Your task to perform on an android device: stop showing notifications on the lock screen Image 0: 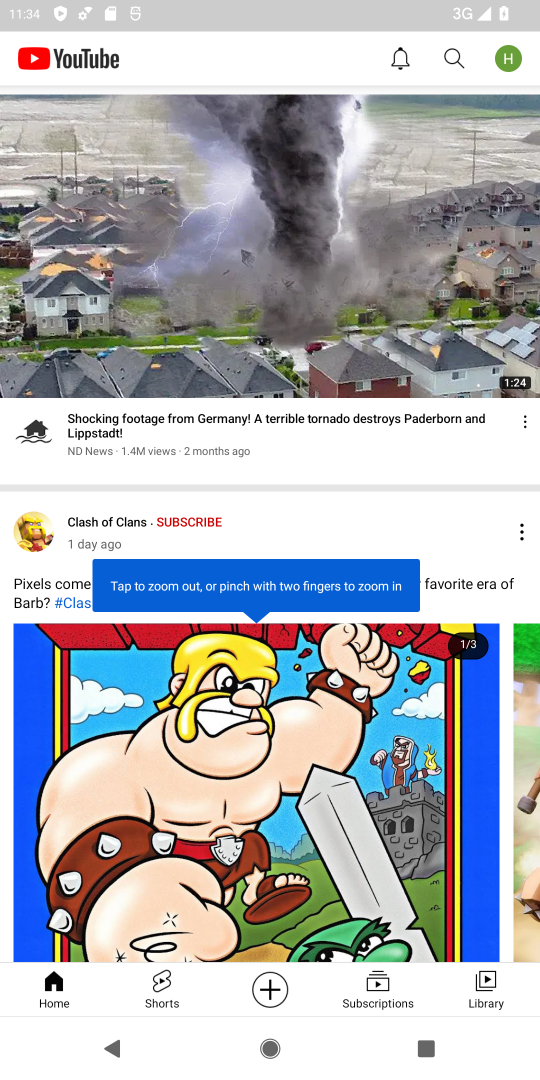
Step 0: drag from (203, 771) to (244, 352)
Your task to perform on an android device: stop showing notifications on the lock screen Image 1: 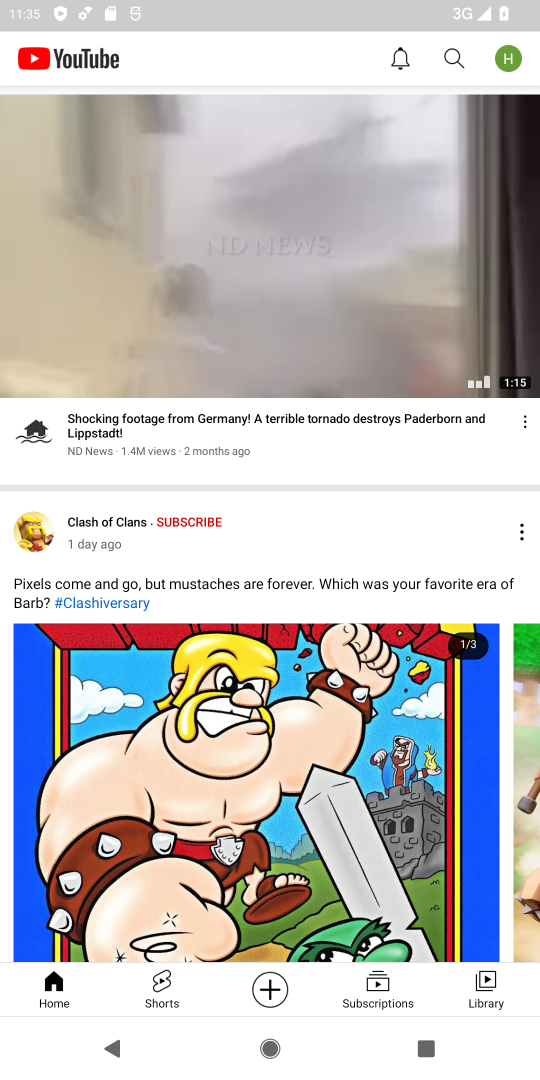
Step 1: drag from (285, 825) to (291, 366)
Your task to perform on an android device: stop showing notifications on the lock screen Image 2: 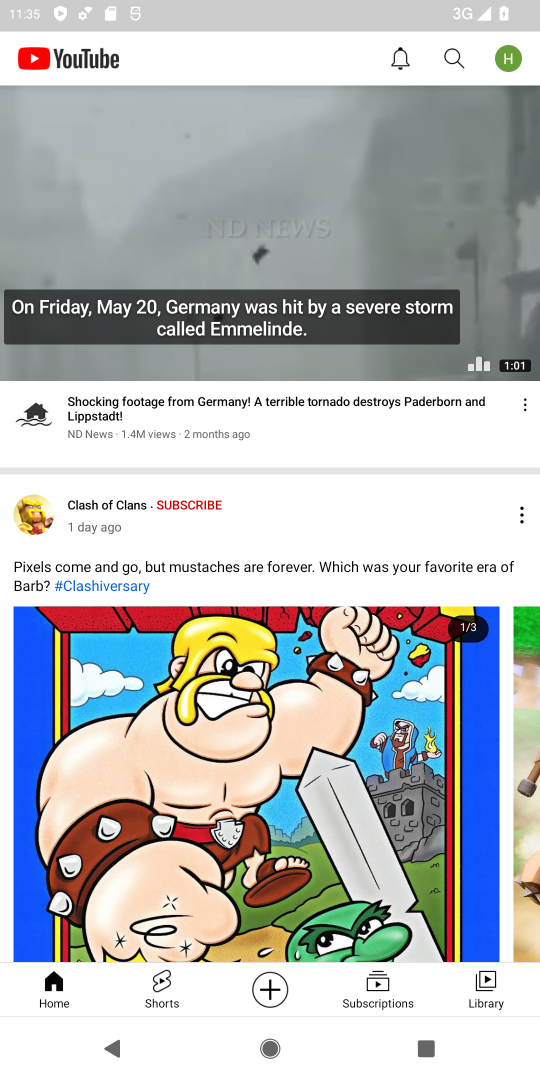
Step 2: drag from (296, 811) to (448, 389)
Your task to perform on an android device: stop showing notifications on the lock screen Image 3: 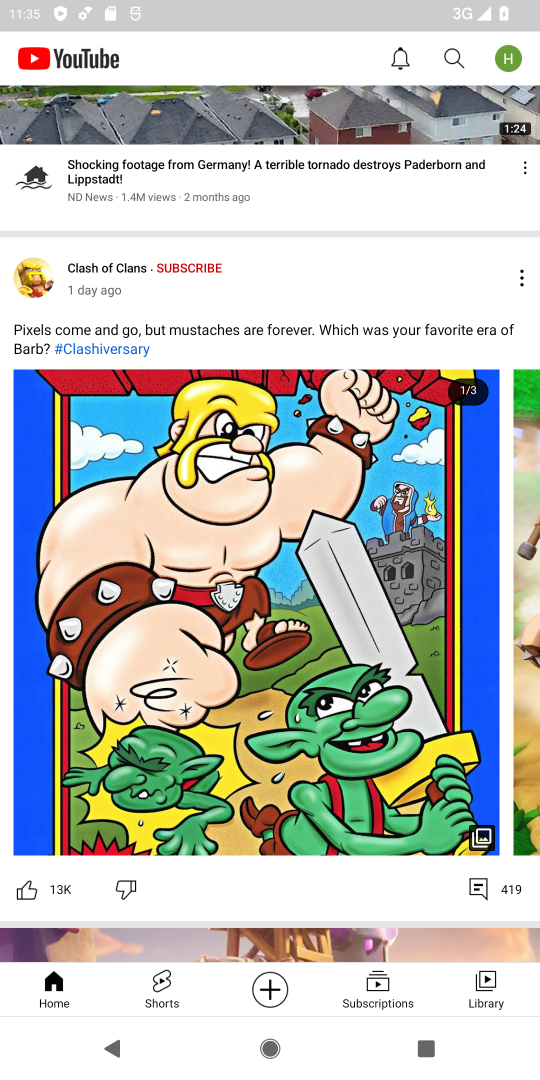
Step 3: drag from (351, 788) to (397, 1046)
Your task to perform on an android device: stop showing notifications on the lock screen Image 4: 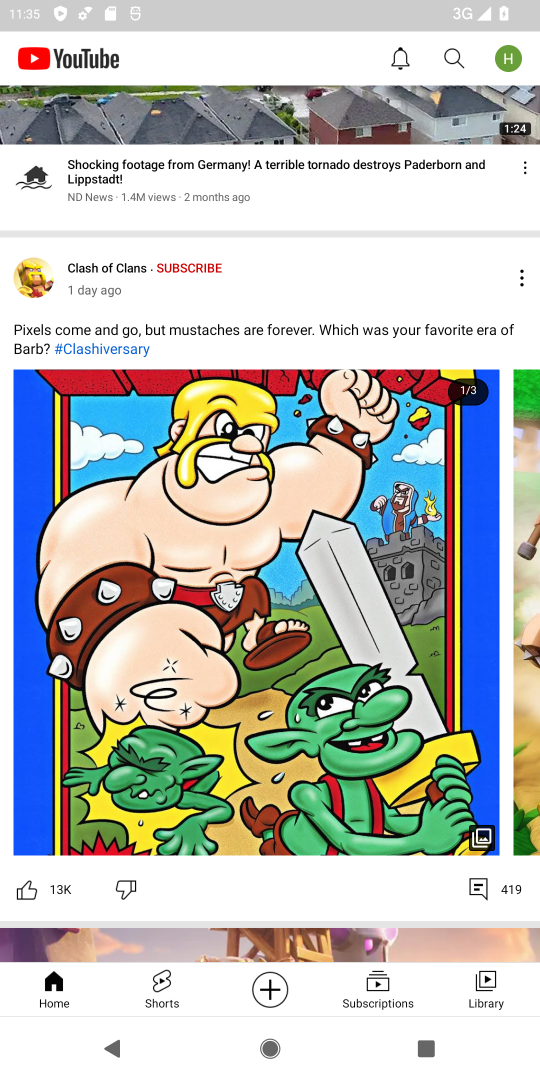
Step 4: press home button
Your task to perform on an android device: stop showing notifications on the lock screen Image 5: 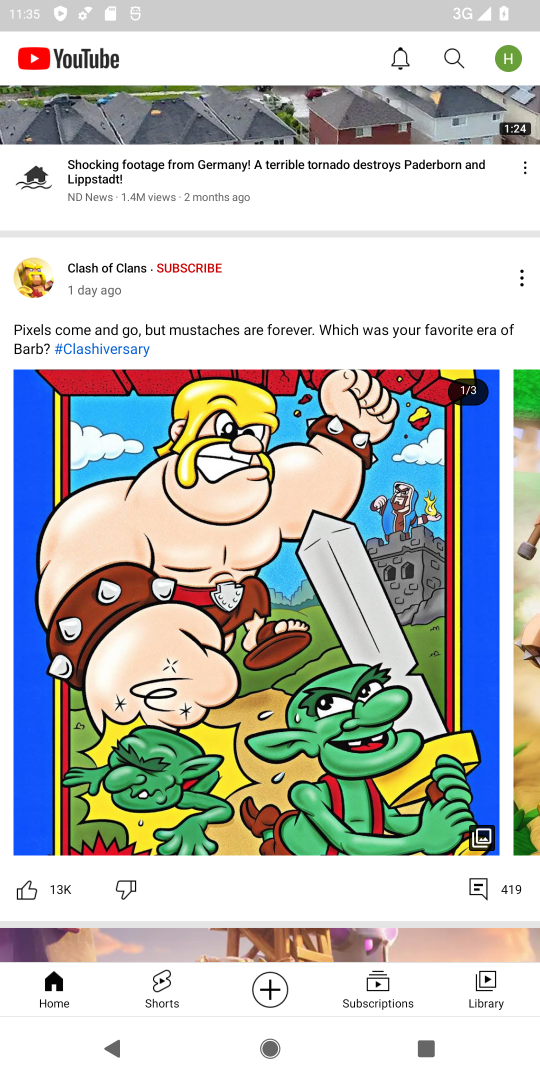
Step 5: click (507, 461)
Your task to perform on an android device: stop showing notifications on the lock screen Image 6: 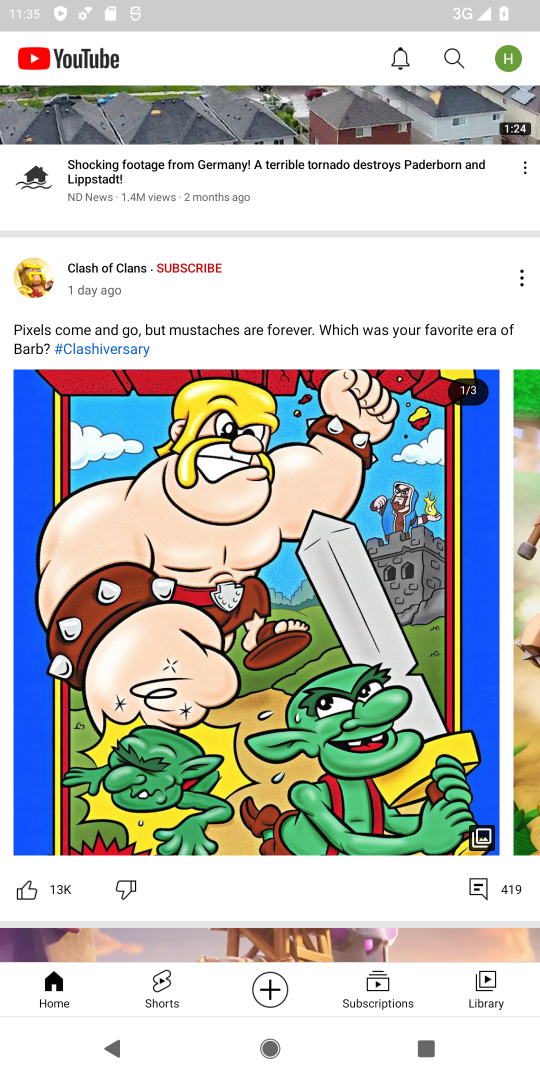
Step 6: drag from (300, 825) to (442, 136)
Your task to perform on an android device: stop showing notifications on the lock screen Image 7: 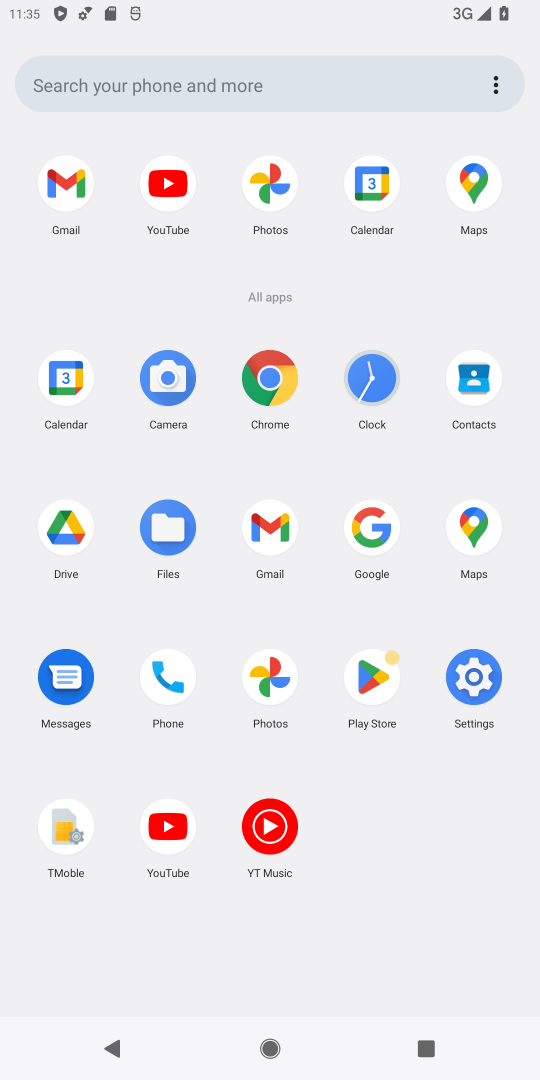
Step 7: click (479, 650)
Your task to perform on an android device: stop showing notifications on the lock screen Image 8: 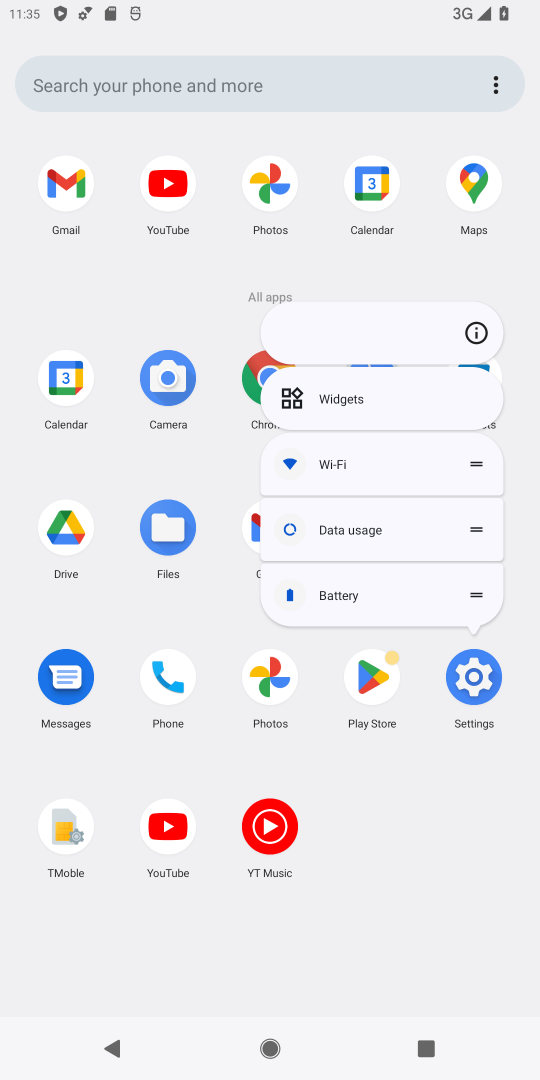
Step 8: click (473, 326)
Your task to perform on an android device: stop showing notifications on the lock screen Image 9: 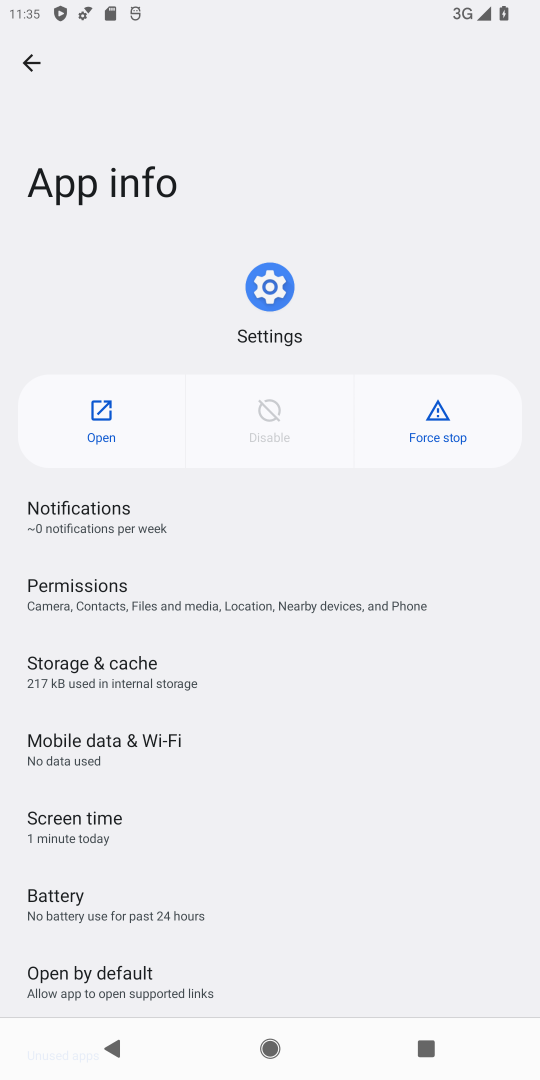
Step 9: click (111, 399)
Your task to perform on an android device: stop showing notifications on the lock screen Image 10: 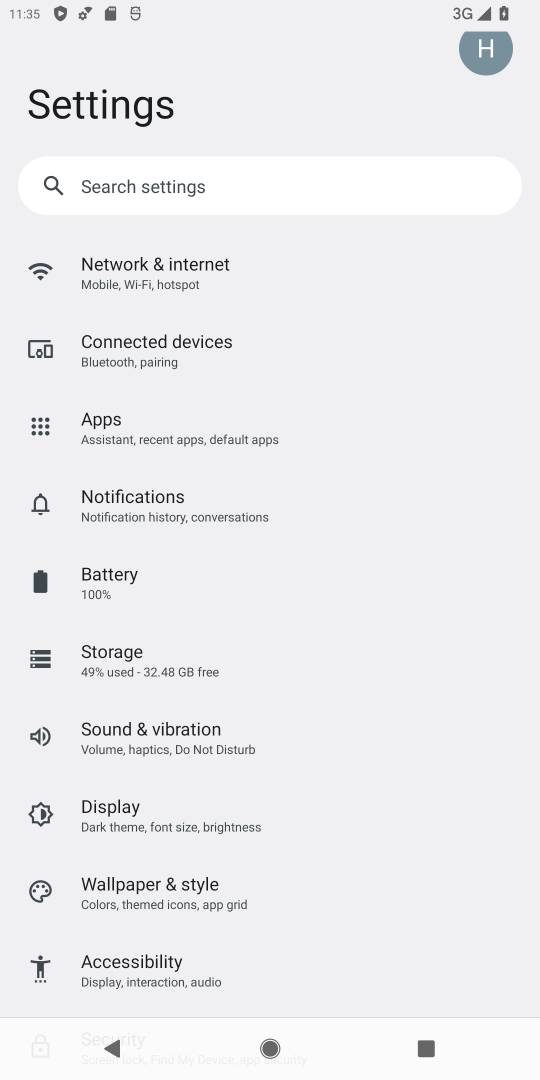
Step 10: drag from (246, 722) to (342, 970)
Your task to perform on an android device: stop showing notifications on the lock screen Image 11: 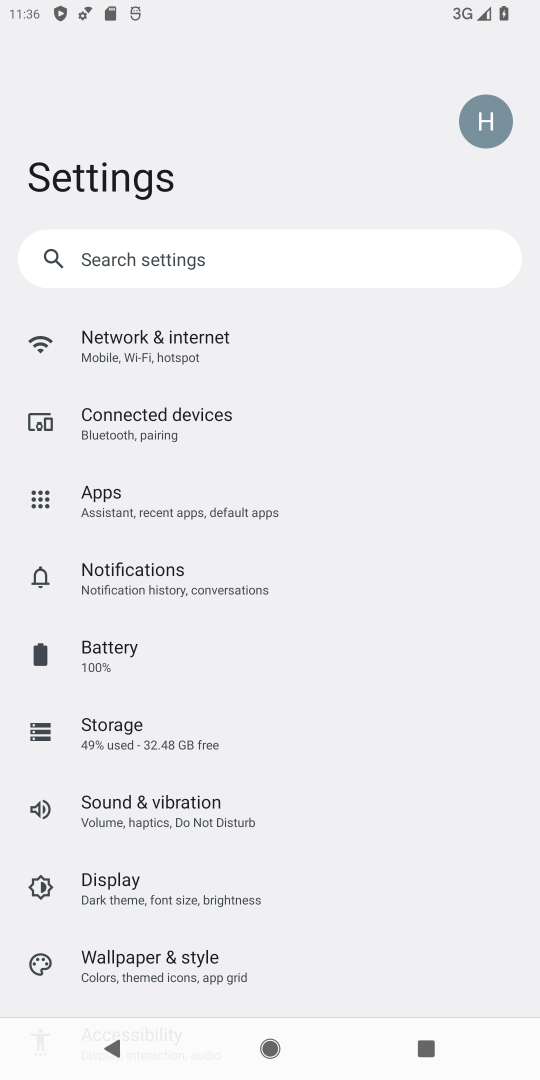
Step 11: click (166, 587)
Your task to perform on an android device: stop showing notifications on the lock screen Image 12: 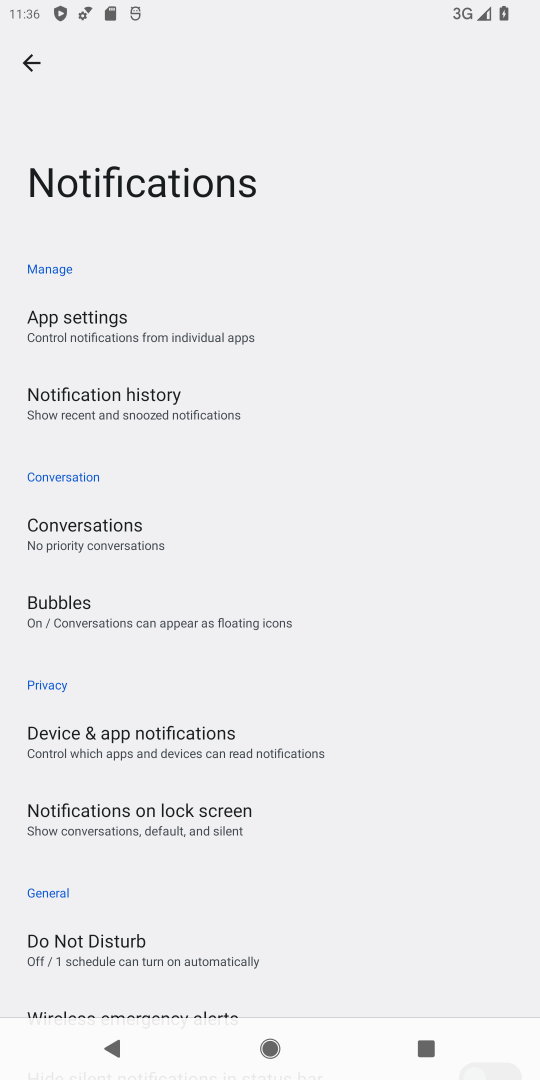
Step 12: drag from (222, 778) to (289, 350)
Your task to perform on an android device: stop showing notifications on the lock screen Image 13: 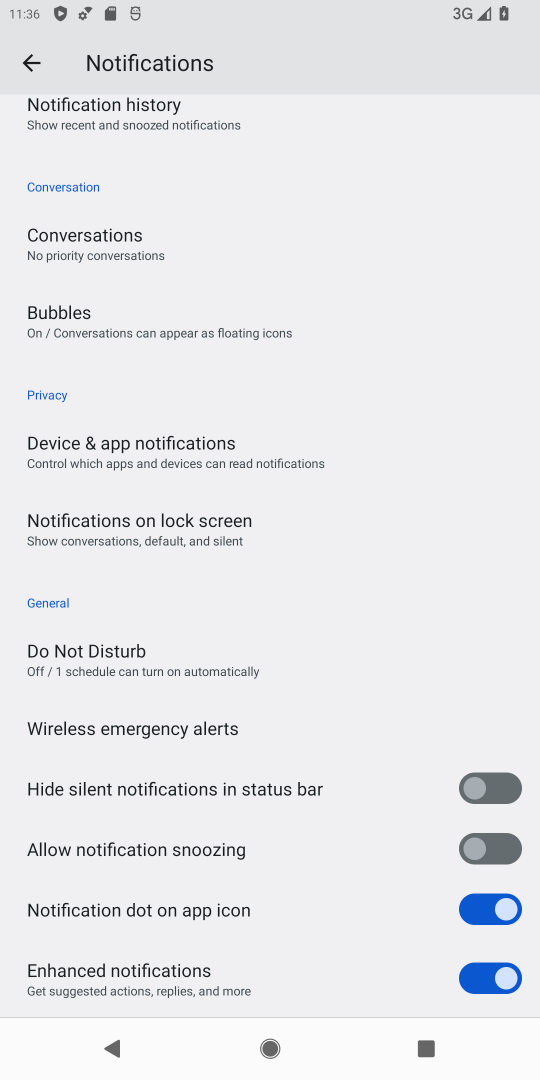
Step 13: click (157, 805)
Your task to perform on an android device: stop showing notifications on the lock screen Image 14: 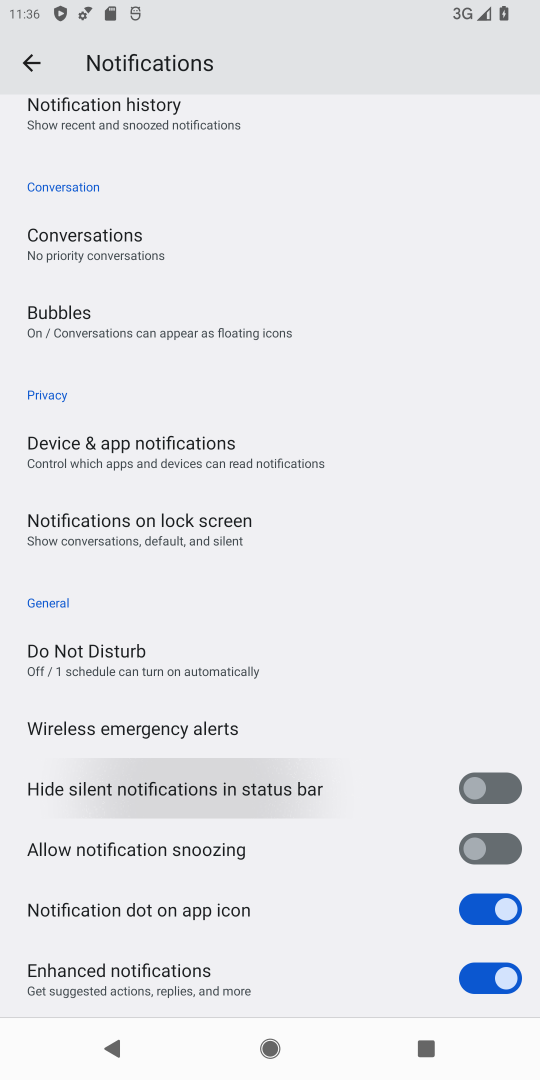
Step 14: drag from (157, 804) to (247, 313)
Your task to perform on an android device: stop showing notifications on the lock screen Image 15: 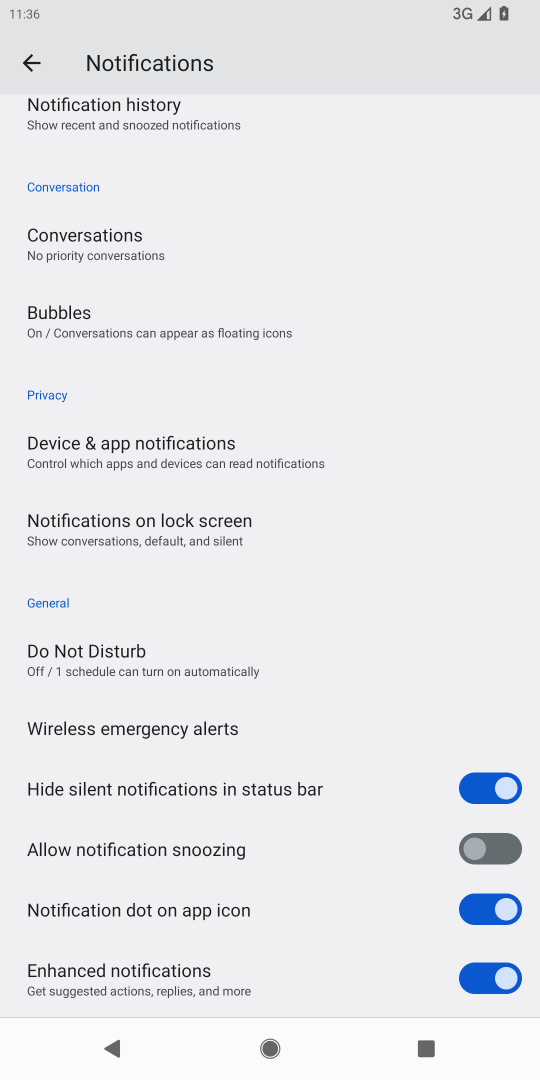
Step 15: click (489, 781)
Your task to perform on an android device: stop showing notifications on the lock screen Image 16: 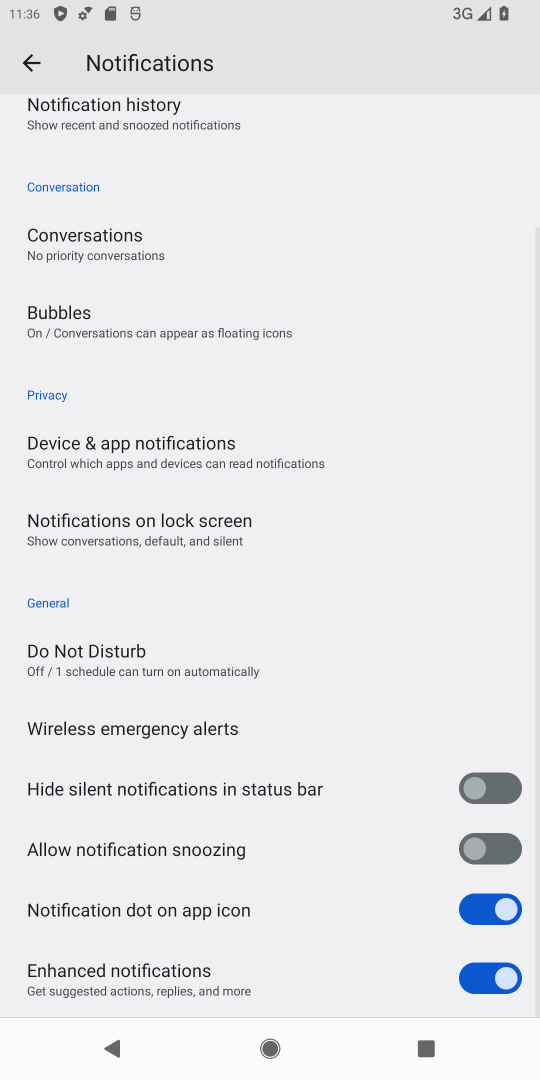
Step 16: click (206, 523)
Your task to perform on an android device: stop showing notifications on the lock screen Image 17: 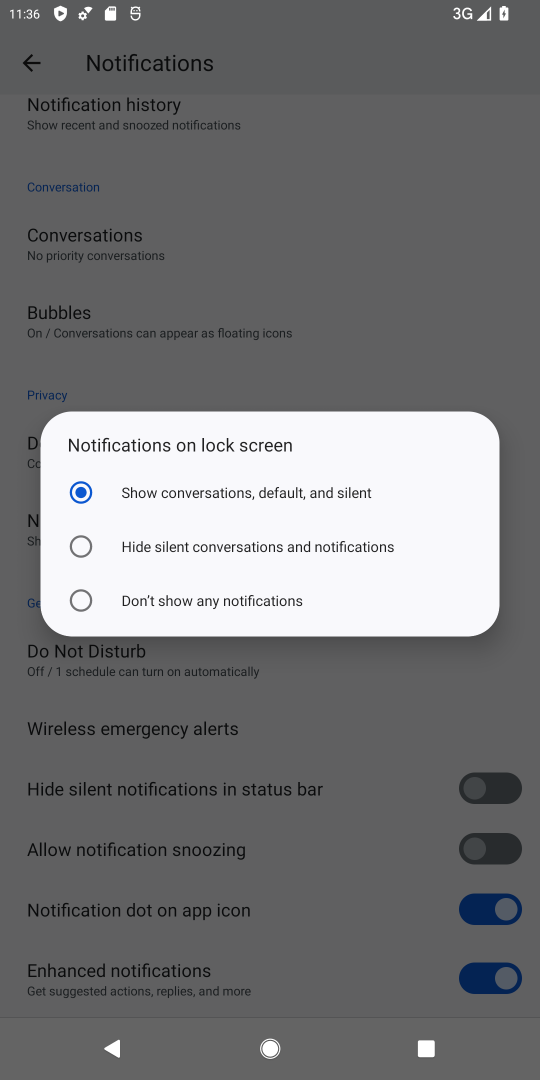
Step 17: click (133, 606)
Your task to perform on an android device: stop showing notifications on the lock screen Image 18: 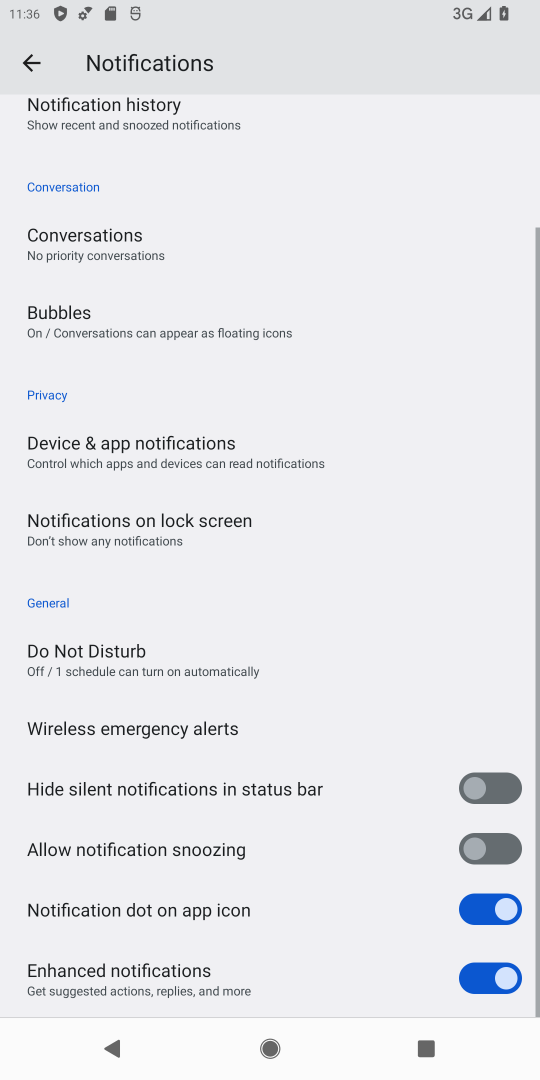
Step 18: task complete